Your task to perform on an android device: Set the phone to "Do not disturb". Image 0: 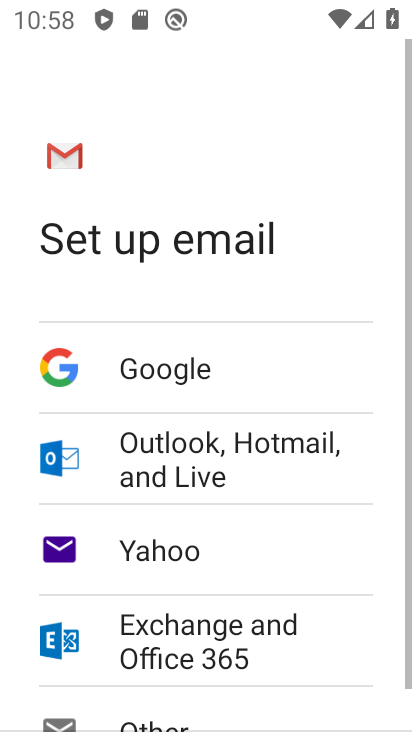
Step 0: press home button
Your task to perform on an android device: Set the phone to "Do not disturb". Image 1: 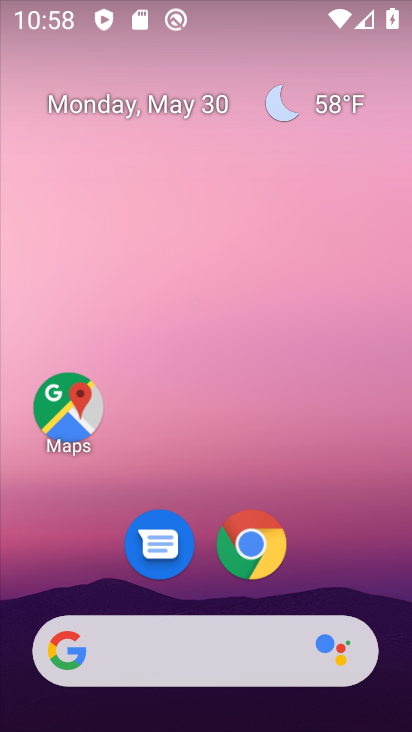
Step 1: drag from (371, 588) to (327, 20)
Your task to perform on an android device: Set the phone to "Do not disturb". Image 2: 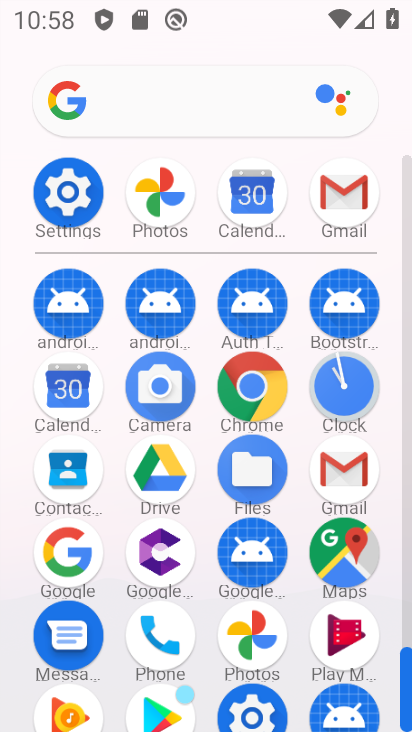
Step 2: click (70, 208)
Your task to perform on an android device: Set the phone to "Do not disturb". Image 3: 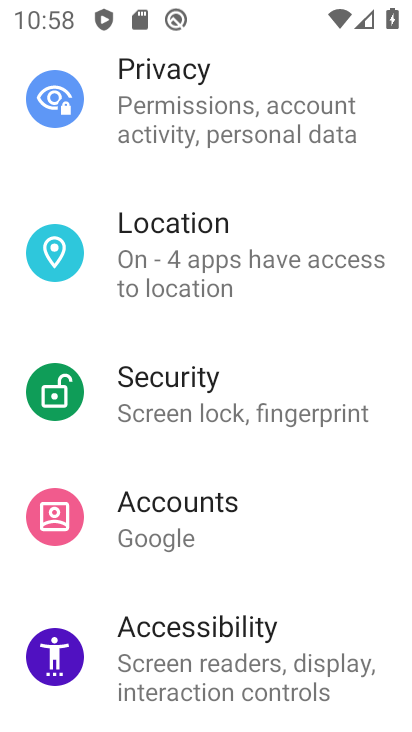
Step 3: task complete